Your task to perform on an android device: turn on the 24-hour format for clock Image 0: 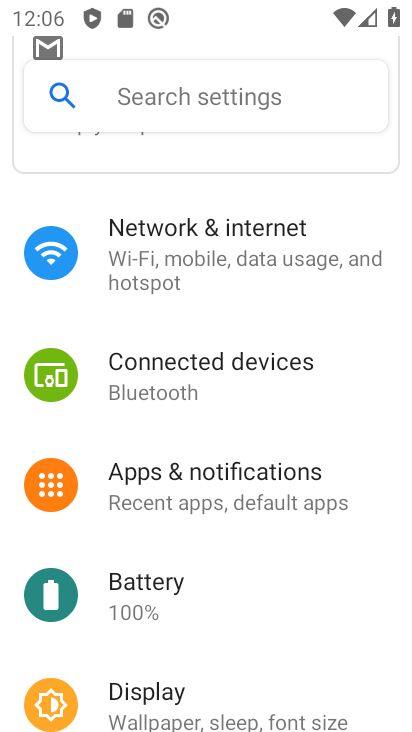
Step 0: press home button
Your task to perform on an android device: turn on the 24-hour format for clock Image 1: 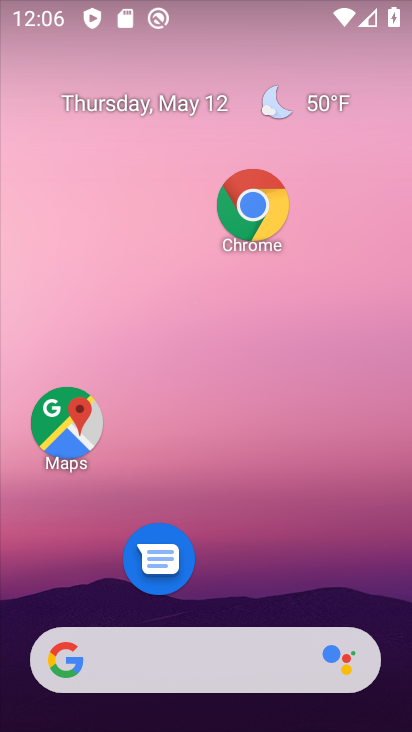
Step 1: drag from (285, 571) to (267, 166)
Your task to perform on an android device: turn on the 24-hour format for clock Image 2: 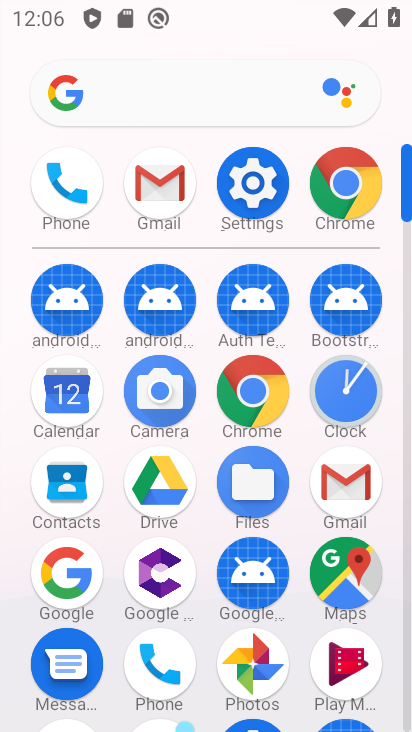
Step 2: click (358, 424)
Your task to perform on an android device: turn on the 24-hour format for clock Image 3: 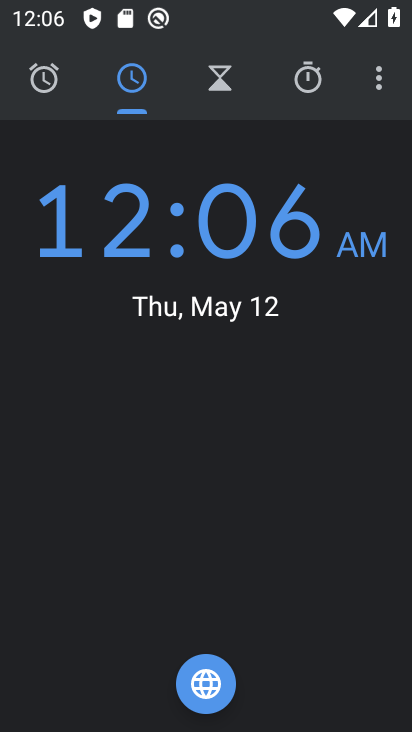
Step 3: click (381, 83)
Your task to perform on an android device: turn on the 24-hour format for clock Image 4: 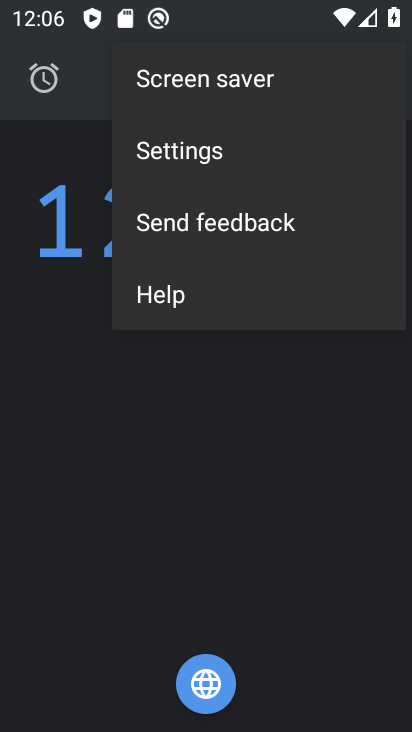
Step 4: click (243, 156)
Your task to perform on an android device: turn on the 24-hour format for clock Image 5: 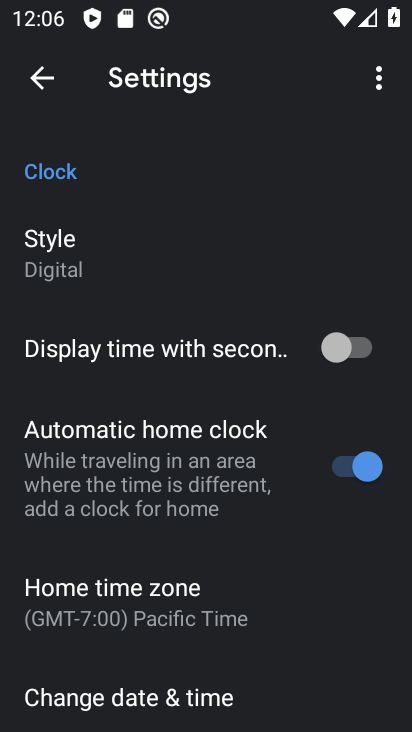
Step 5: drag from (208, 682) to (265, 344)
Your task to perform on an android device: turn on the 24-hour format for clock Image 6: 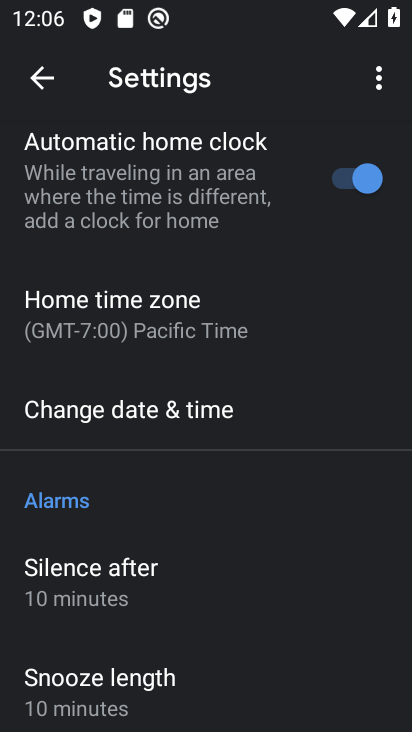
Step 6: drag from (253, 624) to (252, 222)
Your task to perform on an android device: turn on the 24-hour format for clock Image 7: 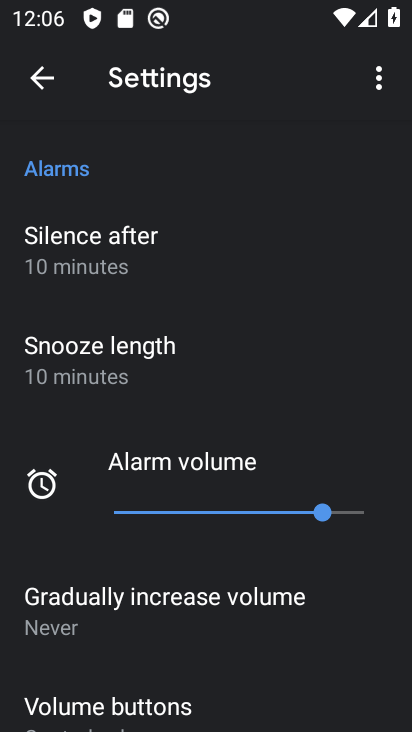
Step 7: drag from (244, 648) to (256, 331)
Your task to perform on an android device: turn on the 24-hour format for clock Image 8: 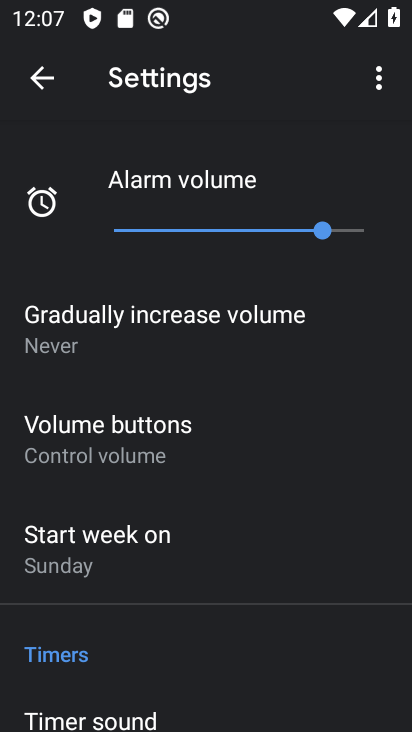
Step 8: drag from (200, 602) to (202, 426)
Your task to perform on an android device: turn on the 24-hour format for clock Image 9: 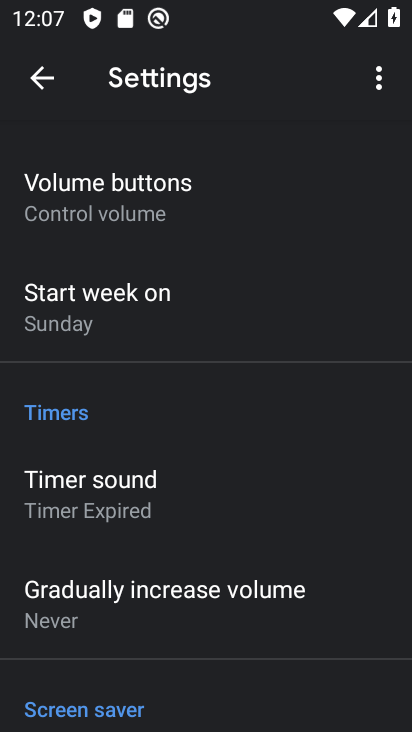
Step 9: drag from (192, 659) to (233, 432)
Your task to perform on an android device: turn on the 24-hour format for clock Image 10: 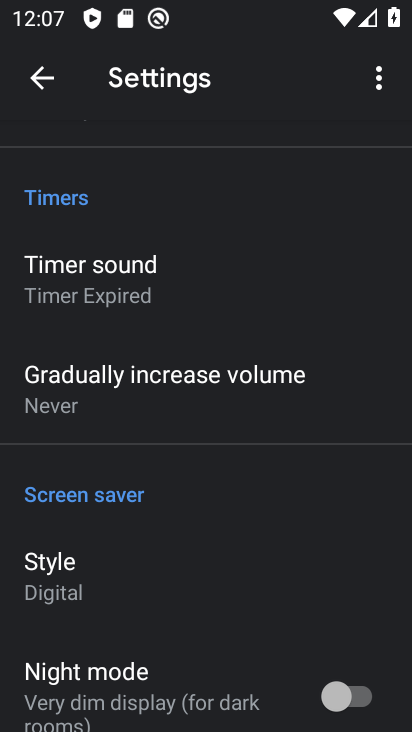
Step 10: drag from (298, 306) to (224, 731)
Your task to perform on an android device: turn on the 24-hour format for clock Image 11: 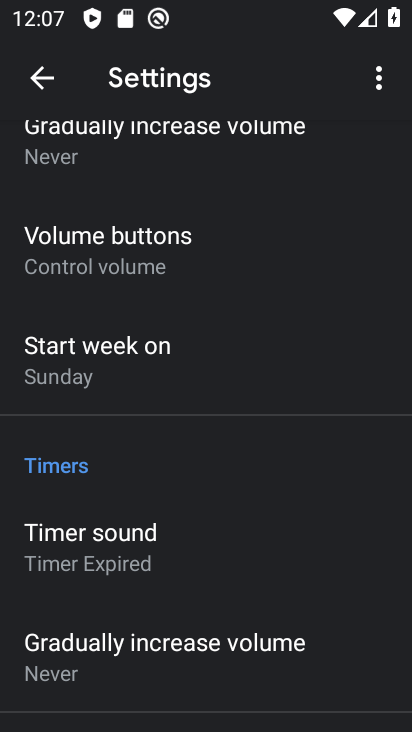
Step 11: drag from (280, 368) to (219, 630)
Your task to perform on an android device: turn on the 24-hour format for clock Image 12: 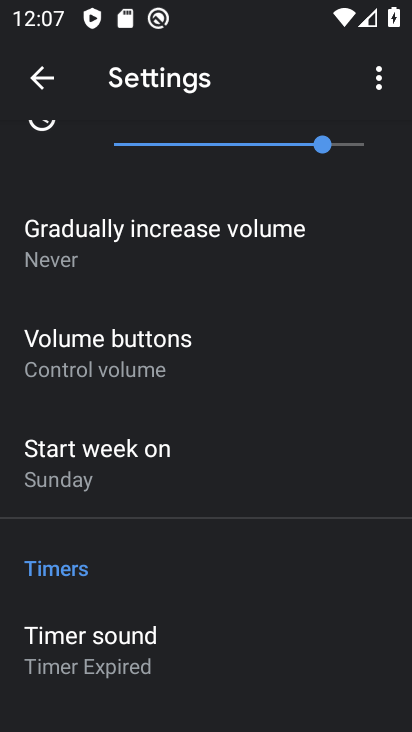
Step 12: drag from (231, 341) to (244, 654)
Your task to perform on an android device: turn on the 24-hour format for clock Image 13: 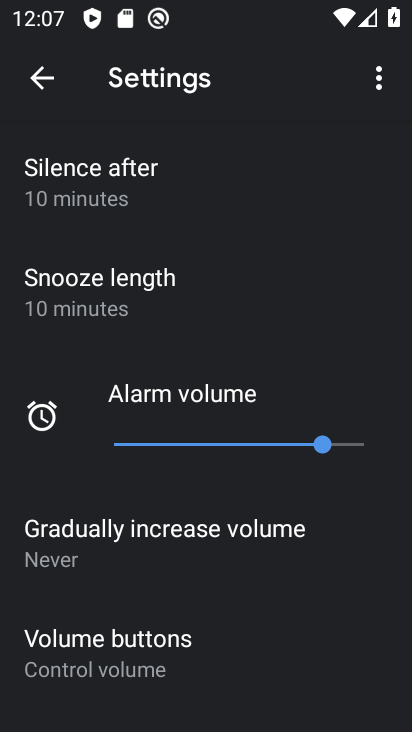
Step 13: click (213, 725)
Your task to perform on an android device: turn on the 24-hour format for clock Image 14: 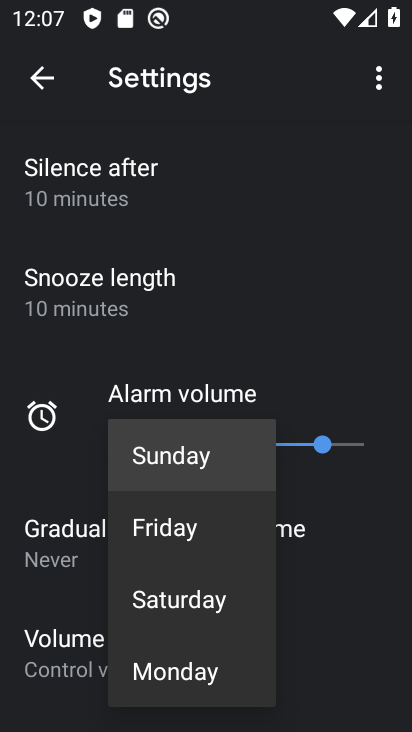
Step 14: drag from (324, 638) to (345, 358)
Your task to perform on an android device: turn on the 24-hour format for clock Image 15: 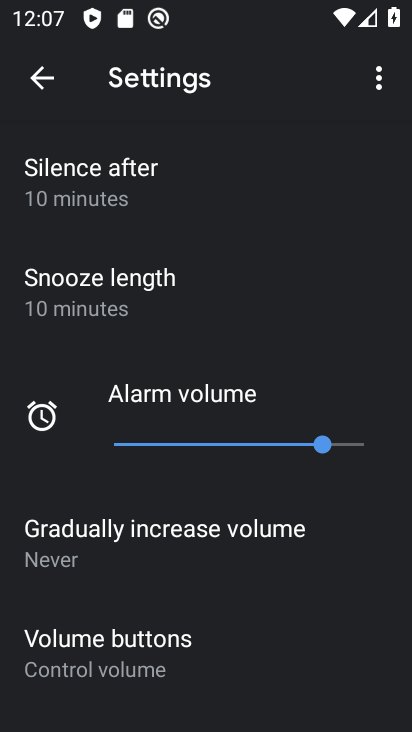
Step 15: drag from (231, 618) to (247, 361)
Your task to perform on an android device: turn on the 24-hour format for clock Image 16: 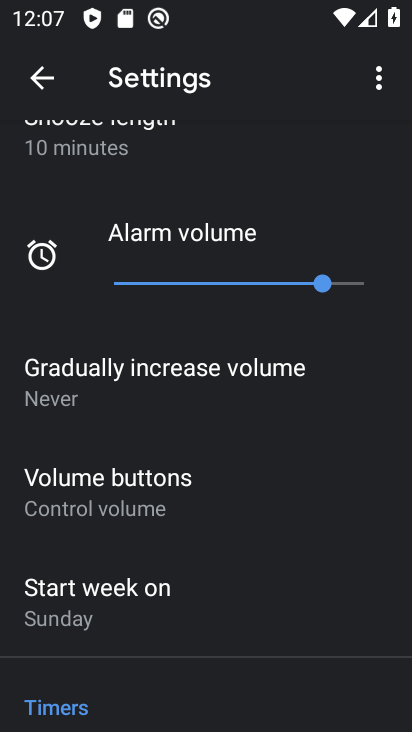
Step 16: drag from (174, 600) to (232, 284)
Your task to perform on an android device: turn on the 24-hour format for clock Image 17: 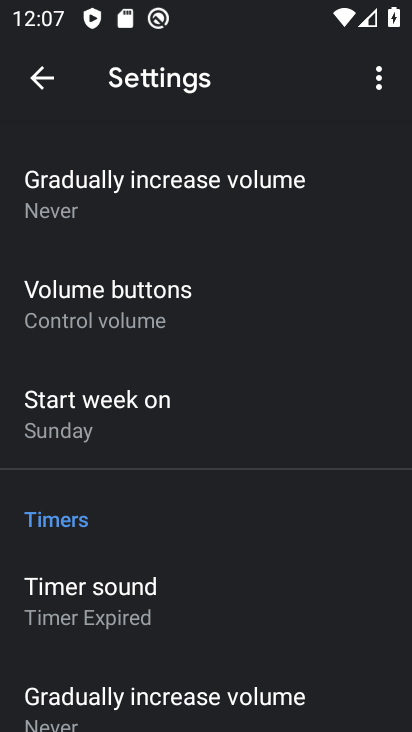
Step 17: drag from (167, 539) to (216, 339)
Your task to perform on an android device: turn on the 24-hour format for clock Image 18: 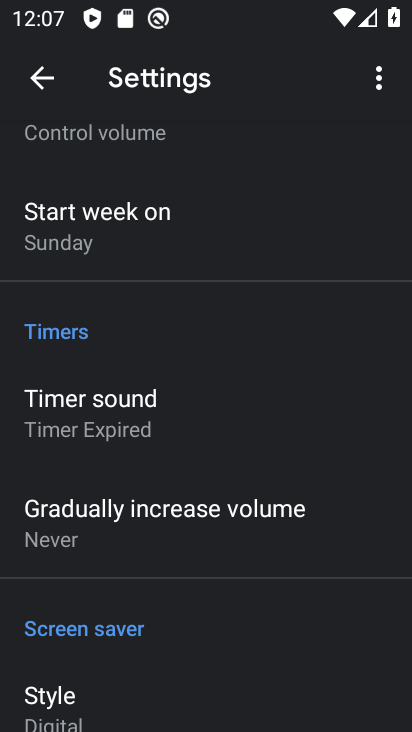
Step 18: drag from (171, 630) to (238, 415)
Your task to perform on an android device: turn on the 24-hour format for clock Image 19: 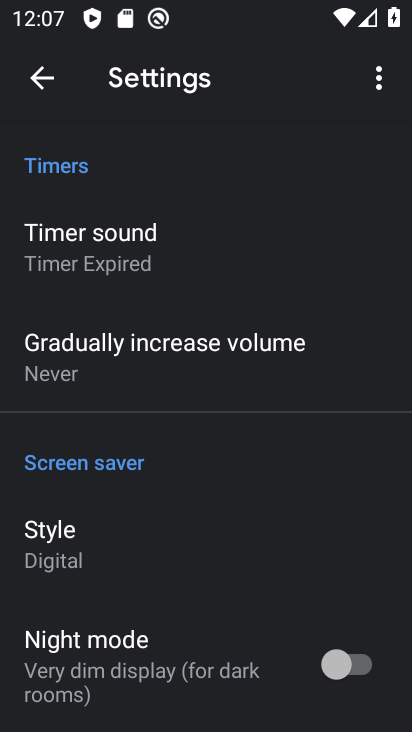
Step 19: drag from (197, 571) to (235, 267)
Your task to perform on an android device: turn on the 24-hour format for clock Image 20: 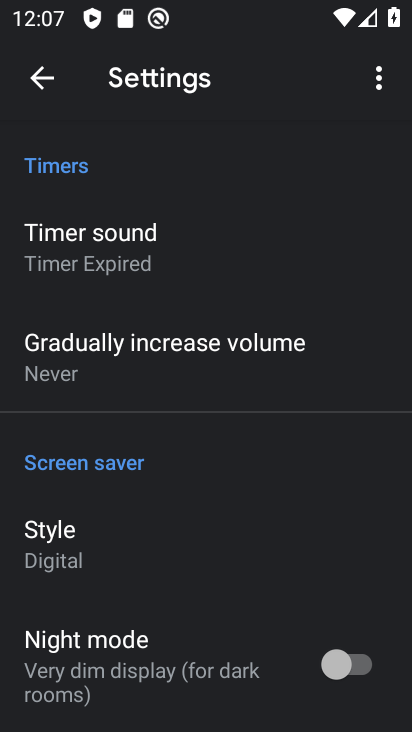
Step 20: drag from (192, 565) to (204, 208)
Your task to perform on an android device: turn on the 24-hour format for clock Image 21: 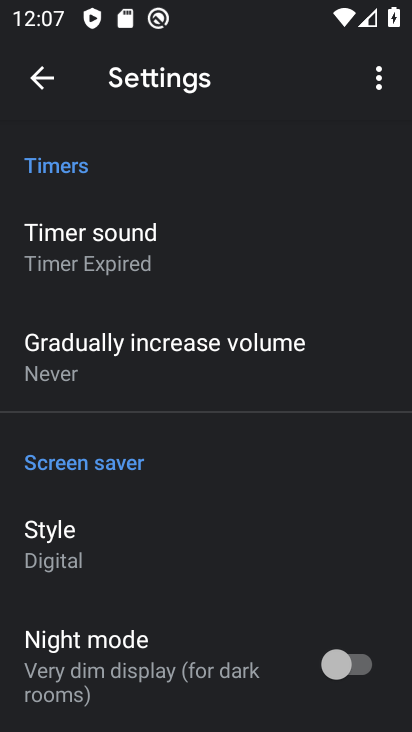
Step 21: drag from (304, 647) to (301, 164)
Your task to perform on an android device: turn on the 24-hour format for clock Image 22: 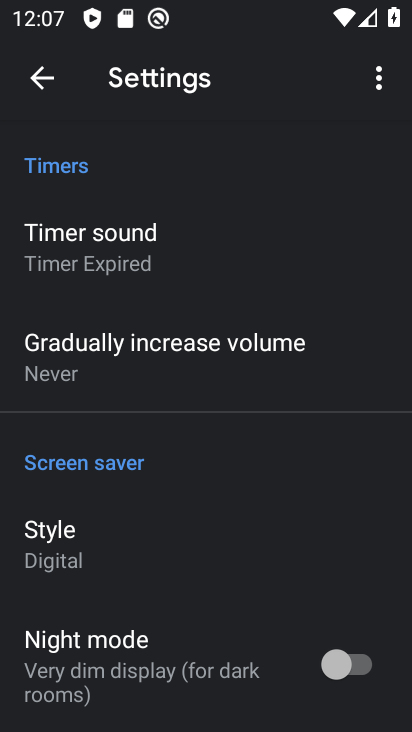
Step 22: drag from (187, 541) to (215, 374)
Your task to perform on an android device: turn on the 24-hour format for clock Image 23: 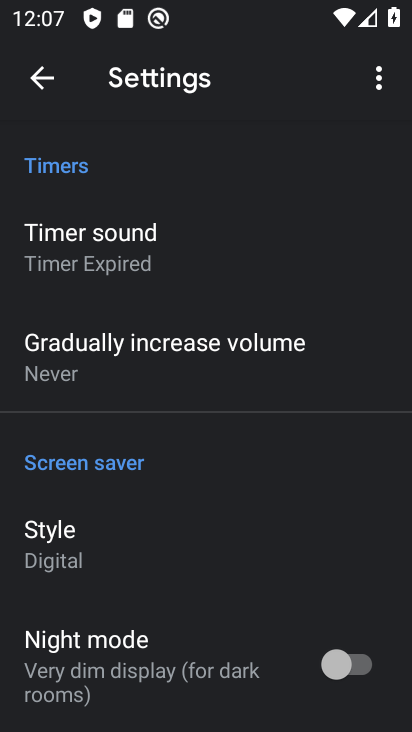
Step 23: drag from (254, 238) to (185, 729)
Your task to perform on an android device: turn on the 24-hour format for clock Image 24: 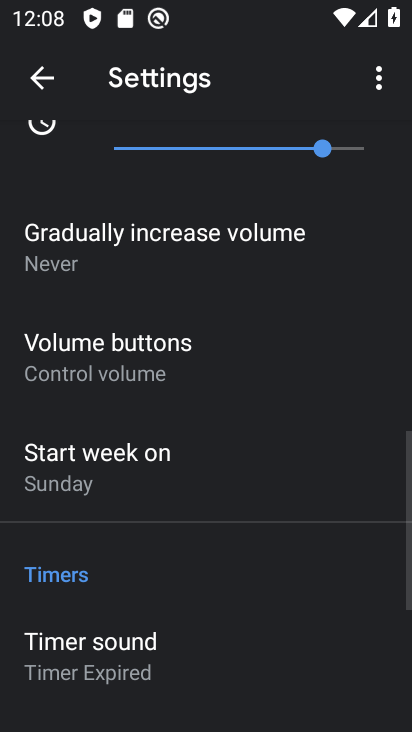
Step 24: drag from (252, 463) to (194, 718)
Your task to perform on an android device: turn on the 24-hour format for clock Image 25: 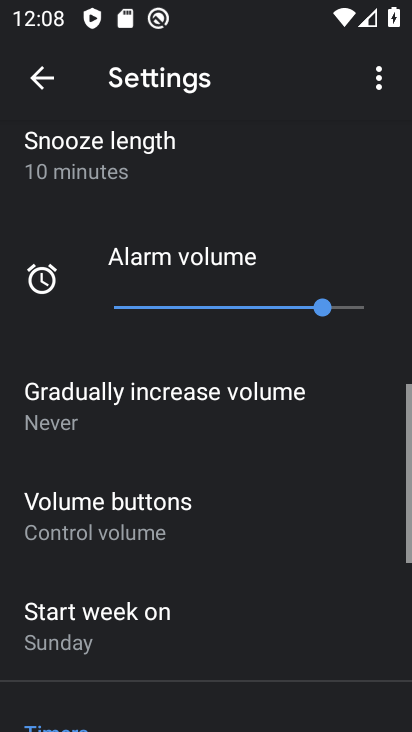
Step 25: drag from (209, 518) to (192, 696)
Your task to perform on an android device: turn on the 24-hour format for clock Image 26: 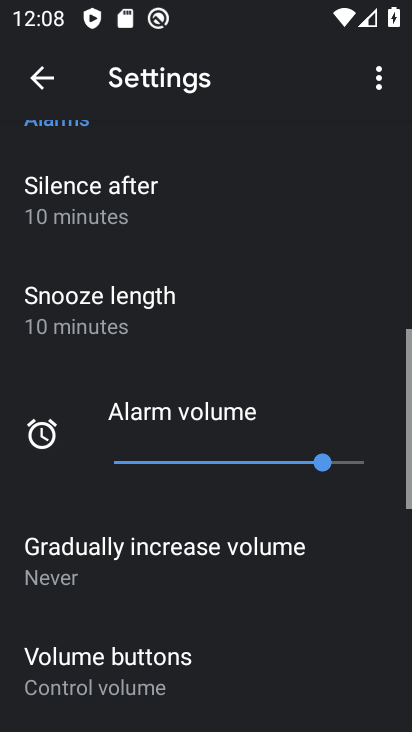
Step 26: drag from (217, 234) to (198, 681)
Your task to perform on an android device: turn on the 24-hour format for clock Image 27: 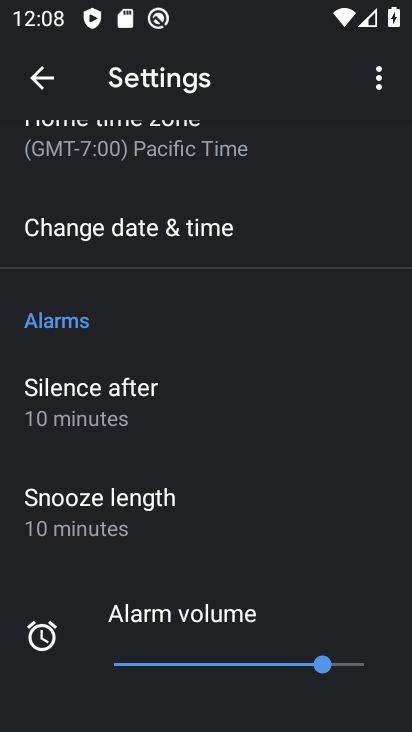
Step 27: click (113, 239)
Your task to perform on an android device: turn on the 24-hour format for clock Image 28: 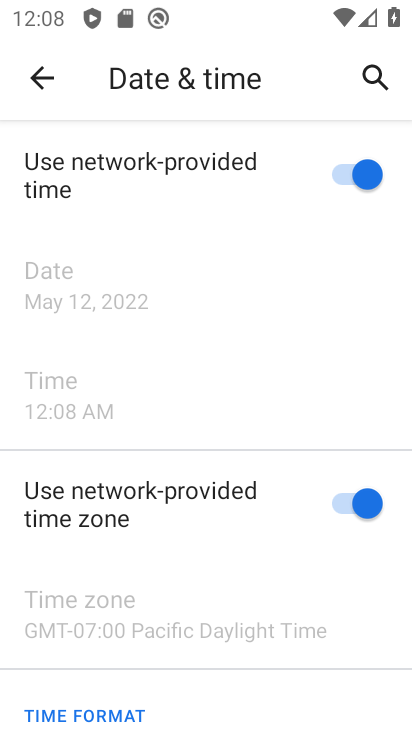
Step 28: drag from (146, 626) to (206, 446)
Your task to perform on an android device: turn on the 24-hour format for clock Image 29: 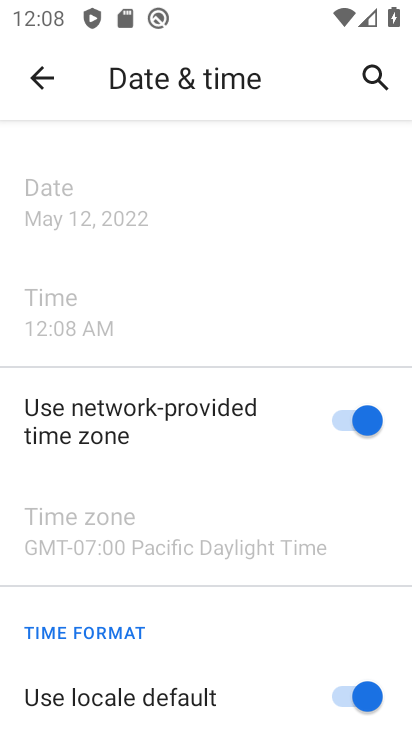
Step 29: drag from (181, 643) to (234, 467)
Your task to perform on an android device: turn on the 24-hour format for clock Image 30: 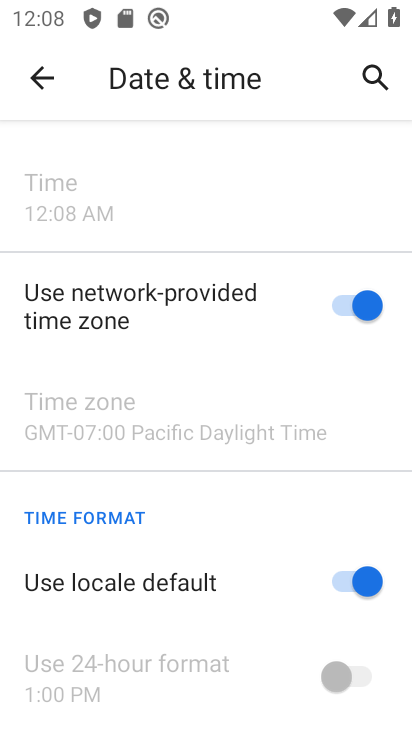
Step 30: drag from (143, 636) to (207, 407)
Your task to perform on an android device: turn on the 24-hour format for clock Image 31: 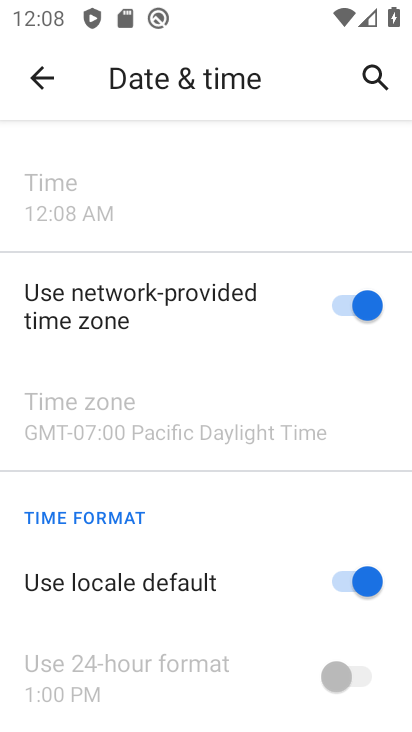
Step 31: click (145, 644)
Your task to perform on an android device: turn on the 24-hour format for clock Image 32: 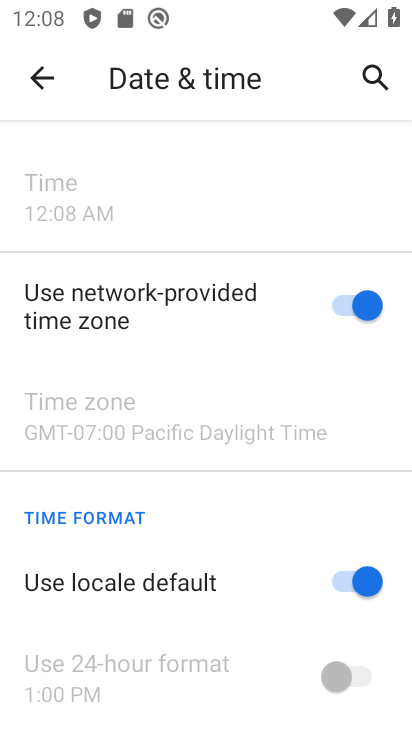
Step 32: drag from (188, 626) to (194, 312)
Your task to perform on an android device: turn on the 24-hour format for clock Image 33: 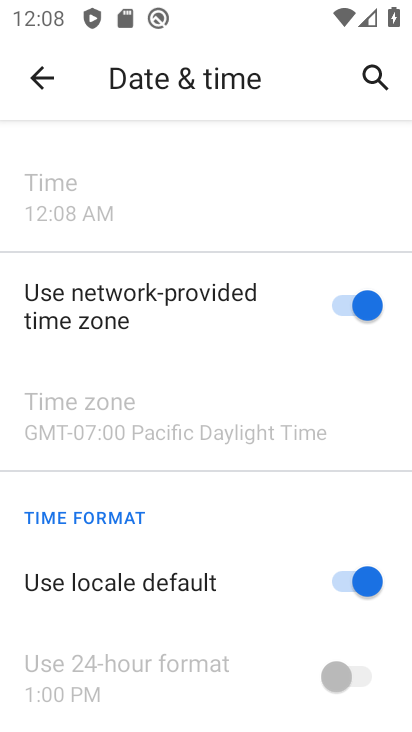
Step 33: click (346, 583)
Your task to perform on an android device: turn on the 24-hour format for clock Image 34: 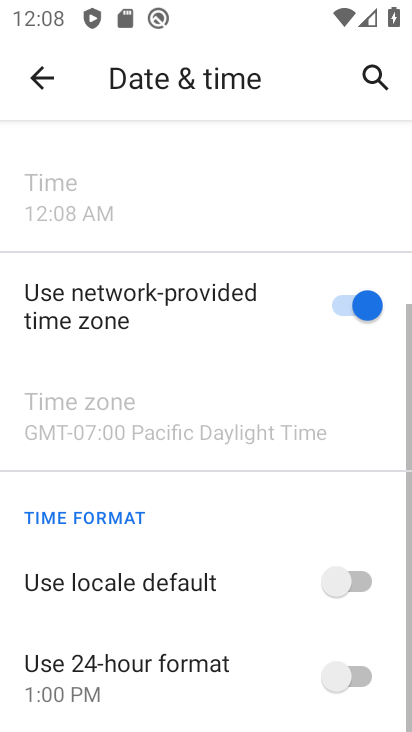
Step 34: click (361, 681)
Your task to perform on an android device: turn on the 24-hour format for clock Image 35: 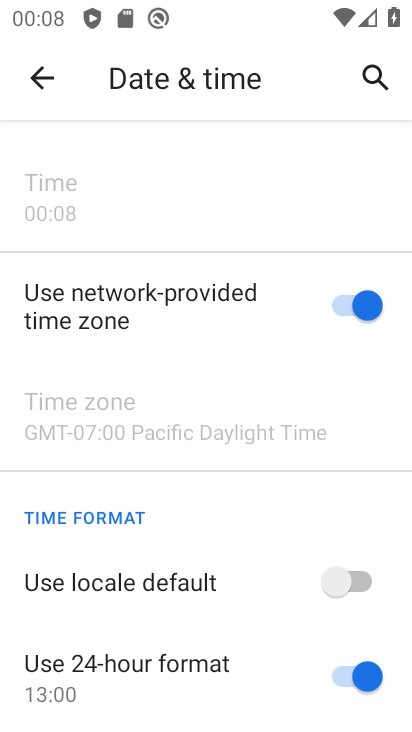
Step 35: task complete